Your task to perform on an android device: Open the Play Movies app and select the watchlist tab. Image 0: 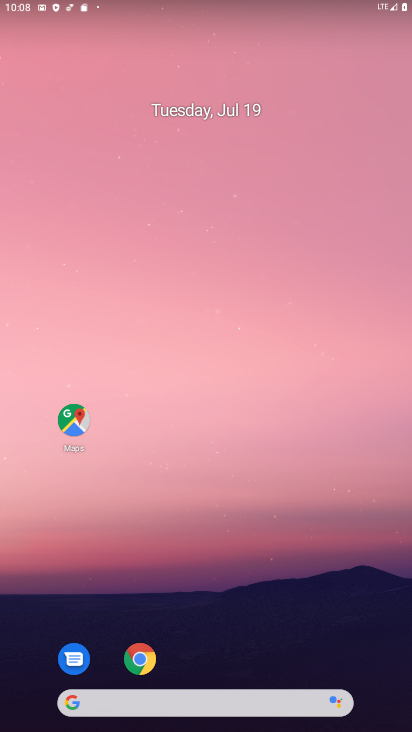
Step 0: drag from (251, 616) to (301, 177)
Your task to perform on an android device: Open the Play Movies app and select the watchlist tab. Image 1: 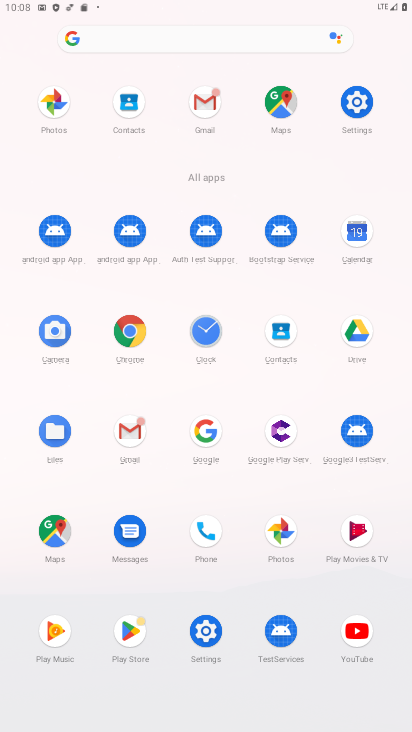
Step 1: click (364, 532)
Your task to perform on an android device: Open the Play Movies app and select the watchlist tab. Image 2: 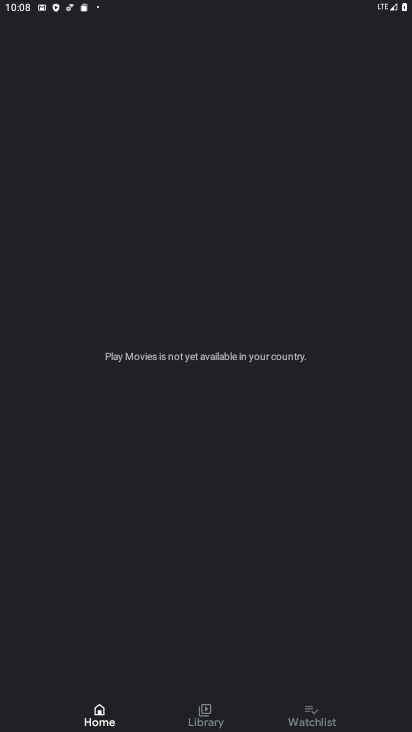
Step 2: click (309, 715)
Your task to perform on an android device: Open the Play Movies app and select the watchlist tab. Image 3: 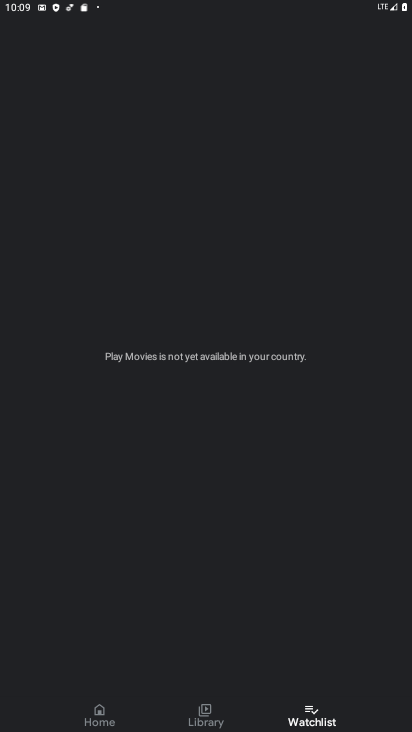
Step 3: task complete